Your task to perform on an android device: Open settings Image 0: 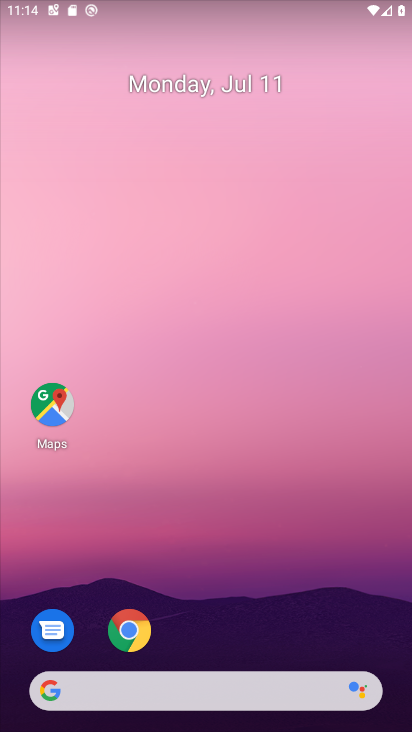
Step 0: drag from (227, 667) to (261, 24)
Your task to perform on an android device: Open settings Image 1: 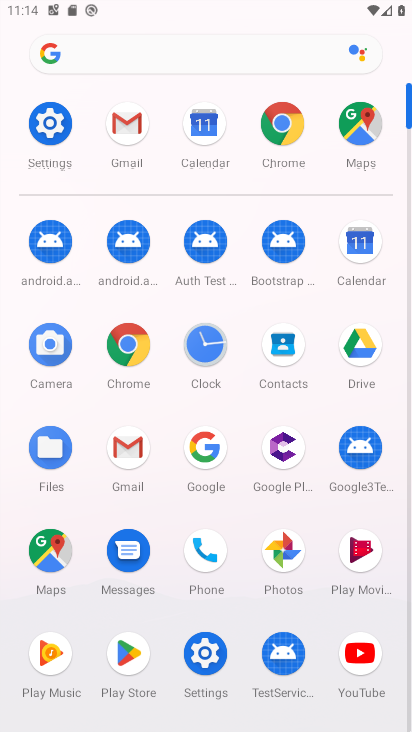
Step 1: click (211, 659)
Your task to perform on an android device: Open settings Image 2: 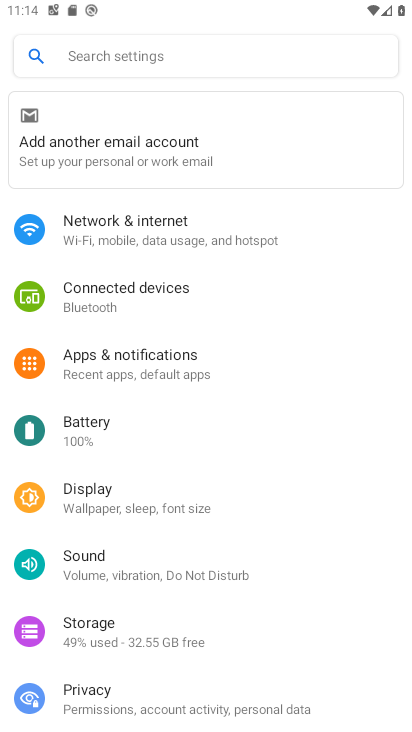
Step 2: task complete